Your task to perform on an android device: toggle wifi Image 0: 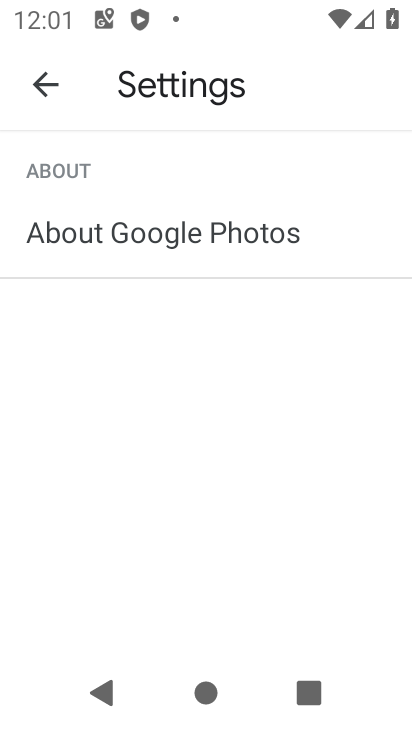
Step 0: press home button
Your task to perform on an android device: toggle wifi Image 1: 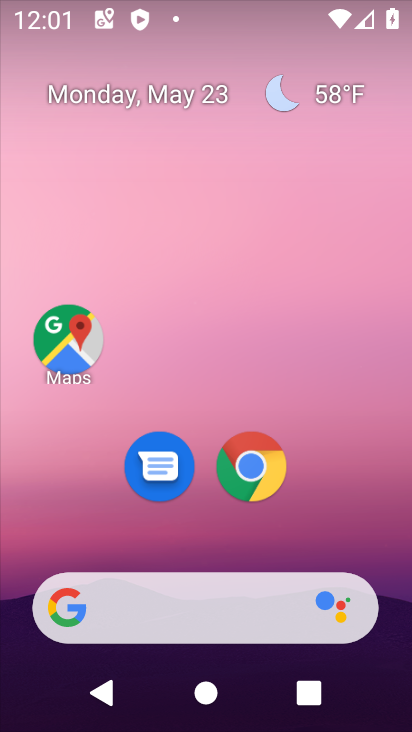
Step 1: drag from (211, 542) to (224, 70)
Your task to perform on an android device: toggle wifi Image 2: 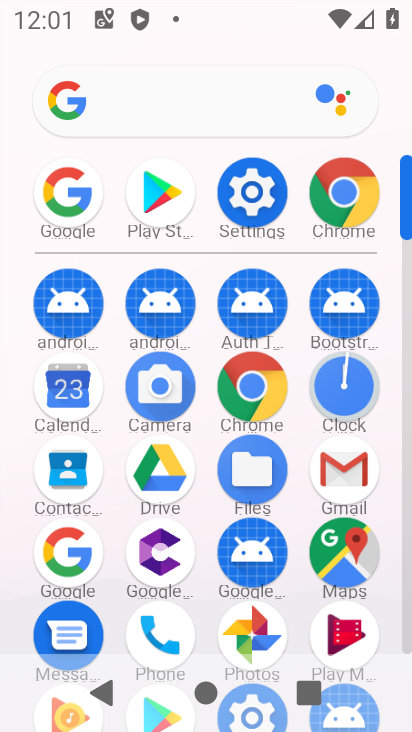
Step 2: click (266, 187)
Your task to perform on an android device: toggle wifi Image 3: 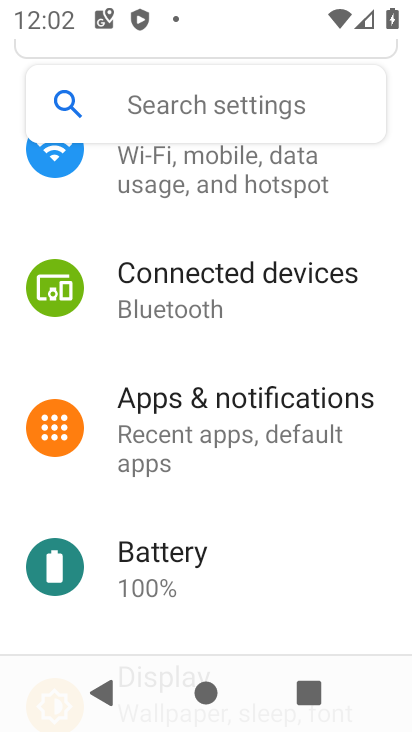
Step 3: drag from (180, 206) to (201, 473)
Your task to perform on an android device: toggle wifi Image 4: 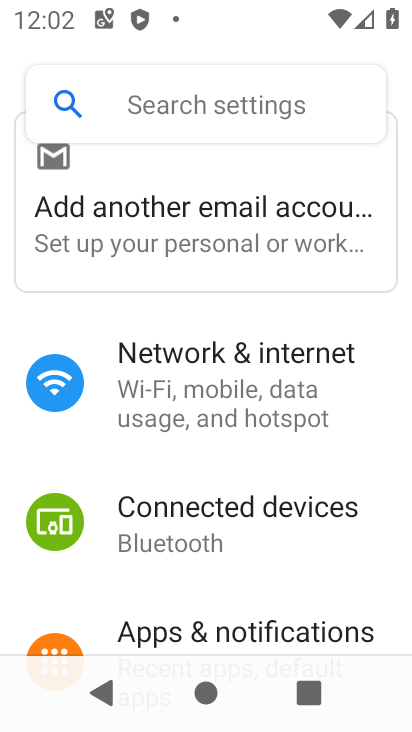
Step 4: click (199, 376)
Your task to perform on an android device: toggle wifi Image 5: 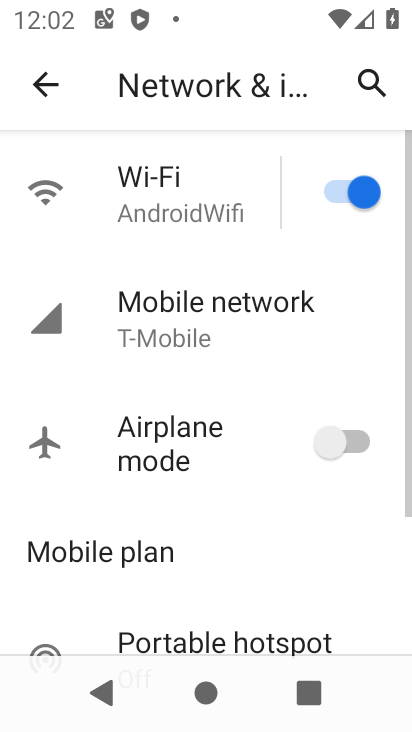
Step 5: click (358, 188)
Your task to perform on an android device: toggle wifi Image 6: 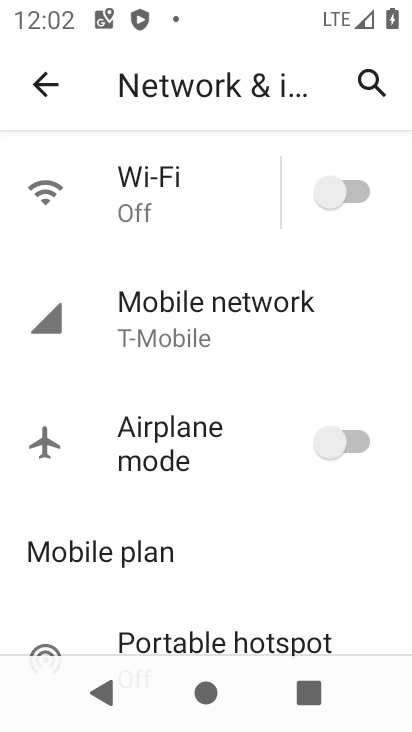
Step 6: task complete